Your task to perform on an android device: move an email to a new category in the gmail app Image 0: 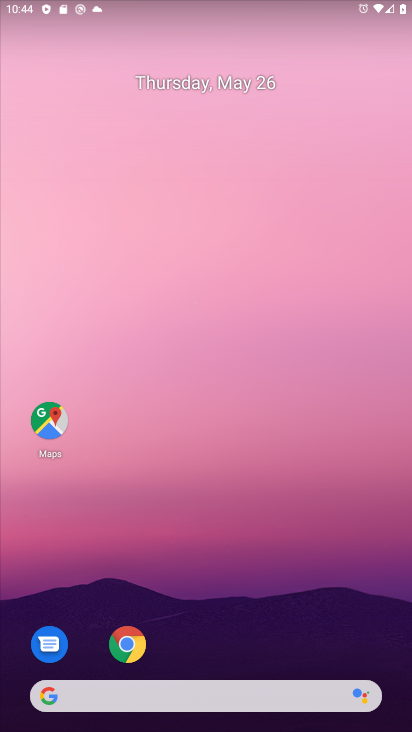
Step 0: drag from (241, 617) to (204, 79)
Your task to perform on an android device: move an email to a new category in the gmail app Image 1: 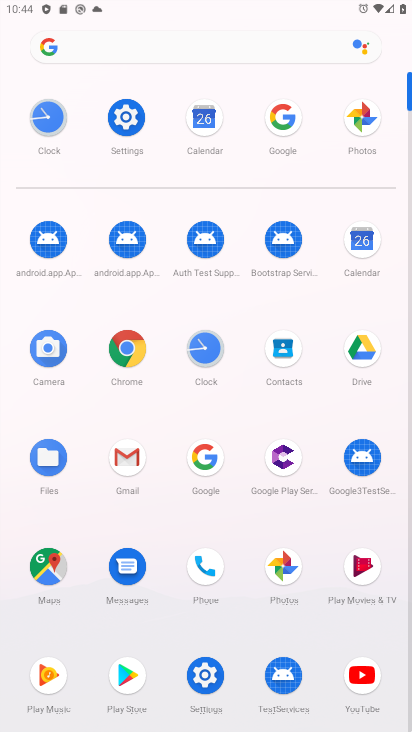
Step 1: click (140, 470)
Your task to perform on an android device: move an email to a new category in the gmail app Image 2: 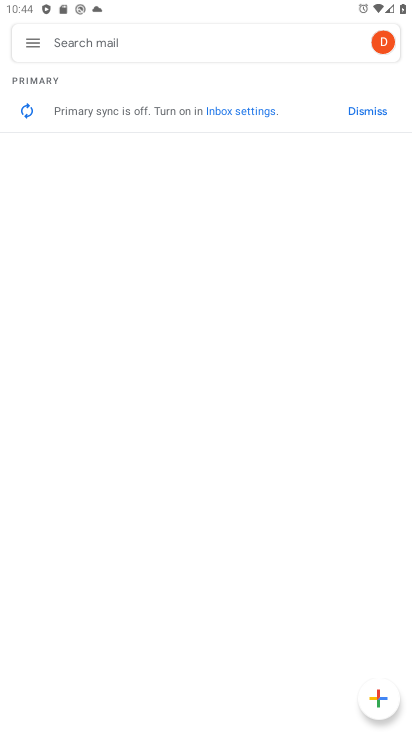
Step 2: click (31, 41)
Your task to perform on an android device: move an email to a new category in the gmail app Image 3: 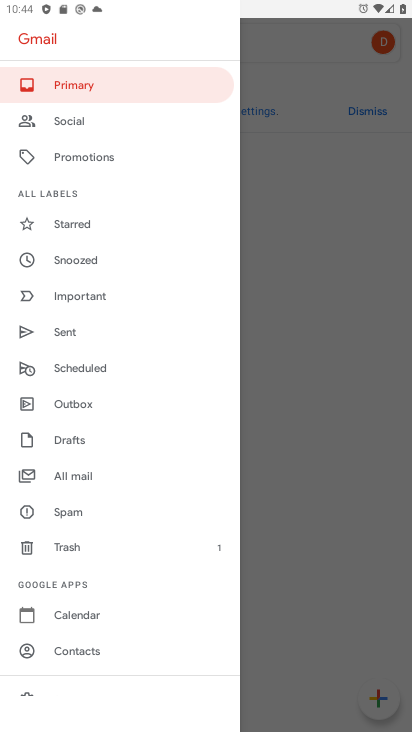
Step 3: click (102, 467)
Your task to perform on an android device: move an email to a new category in the gmail app Image 4: 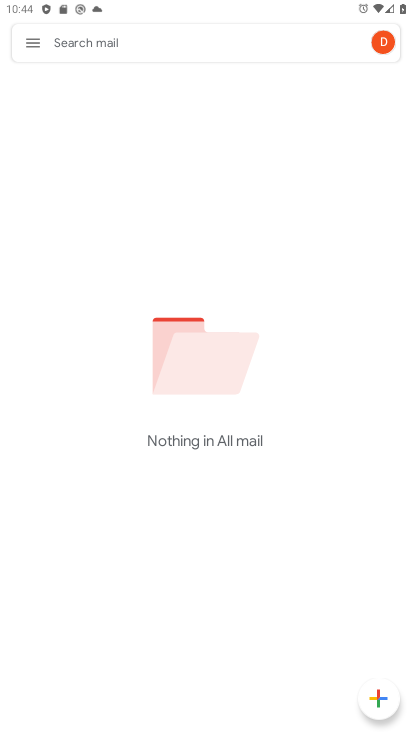
Step 4: task complete